Your task to perform on an android device: Find the nearest electronics store that's open now Image 0: 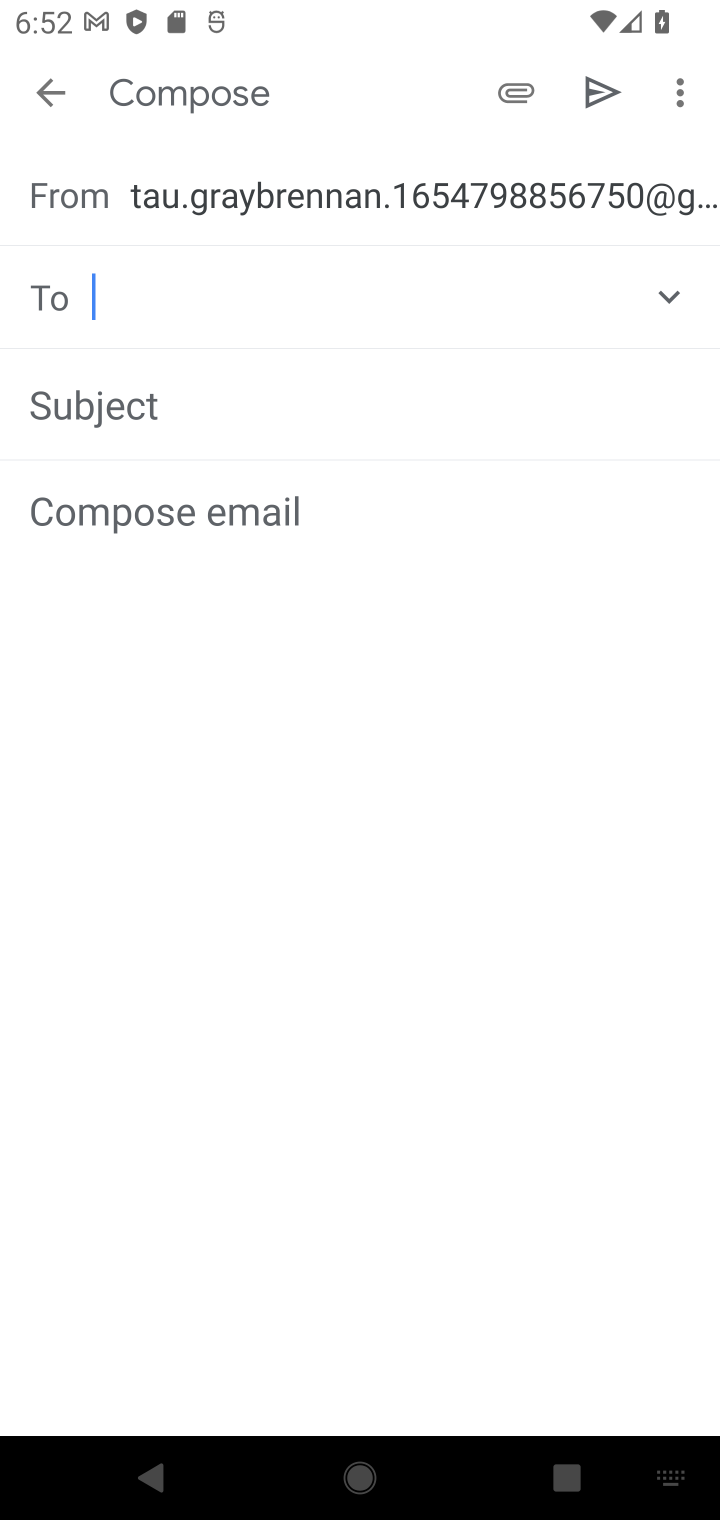
Step 0: press home button
Your task to perform on an android device: Find the nearest electronics store that's open now Image 1: 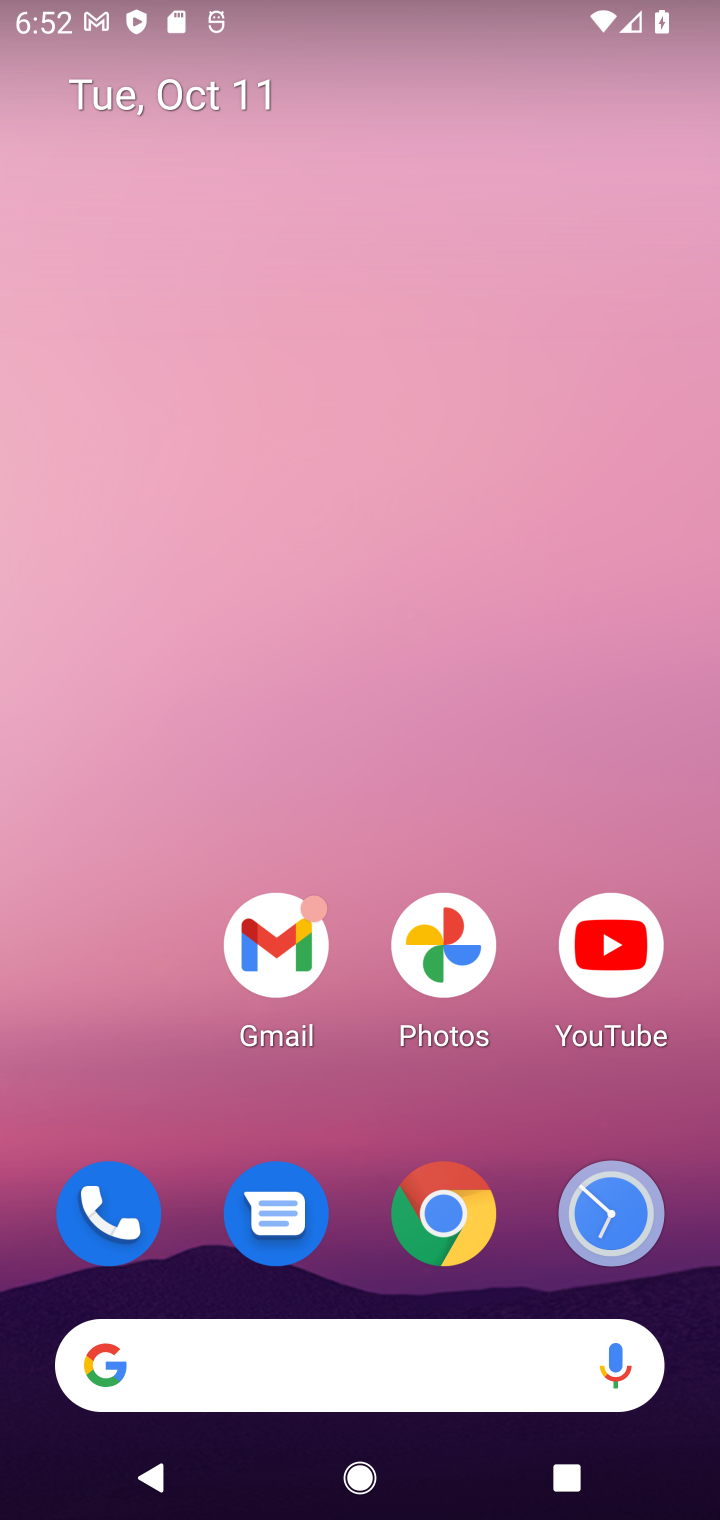
Step 1: drag from (343, 1335) to (302, 351)
Your task to perform on an android device: Find the nearest electronics store that's open now Image 2: 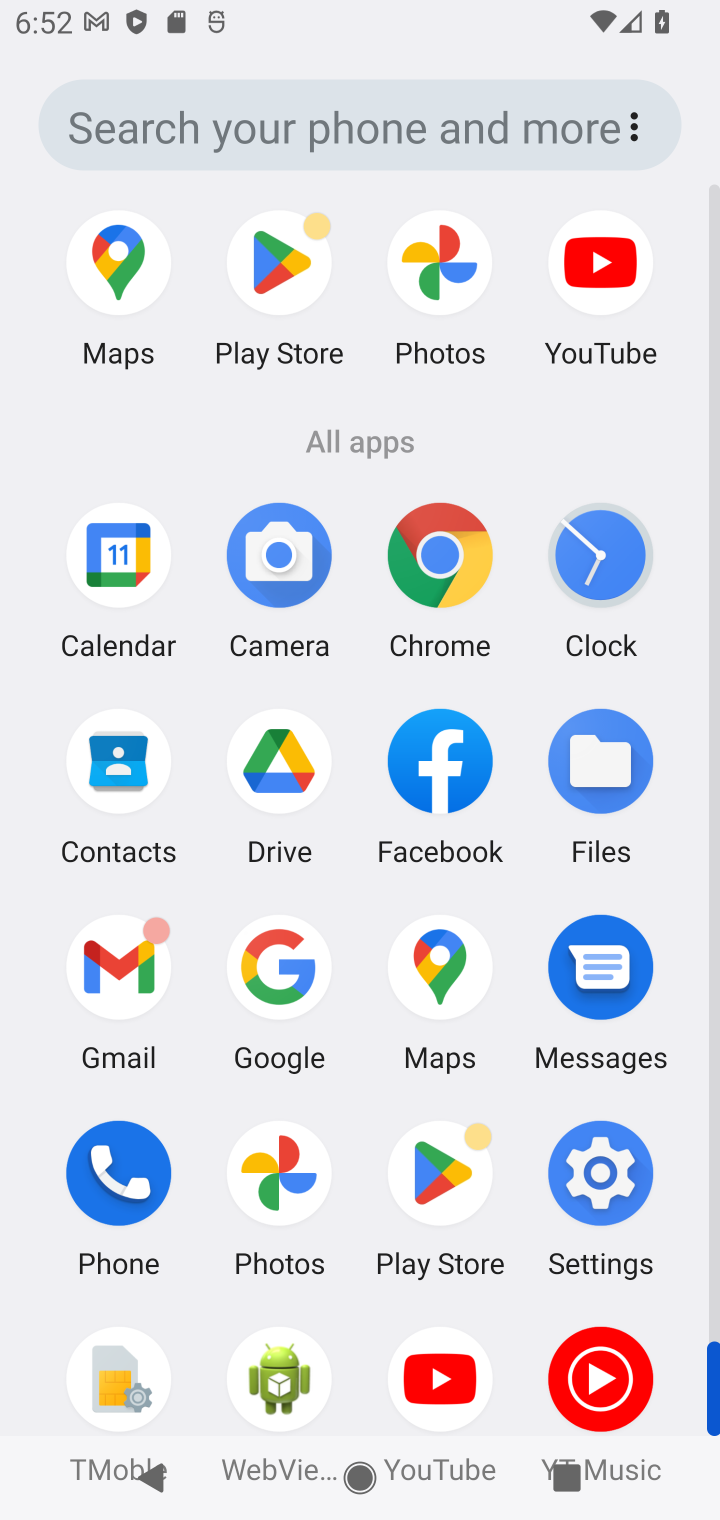
Step 2: click (267, 967)
Your task to perform on an android device: Find the nearest electronics store that's open now Image 3: 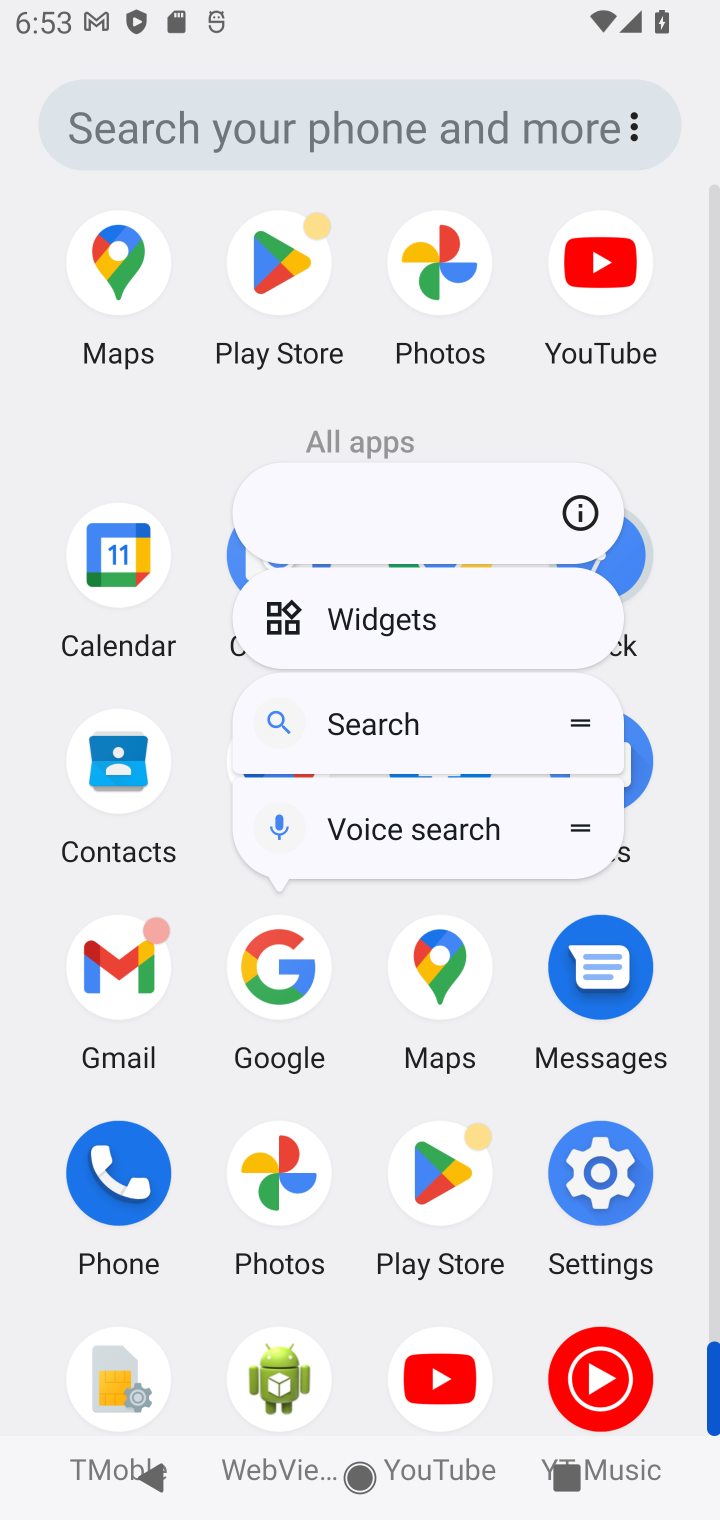
Step 3: click (266, 958)
Your task to perform on an android device: Find the nearest electronics store that's open now Image 4: 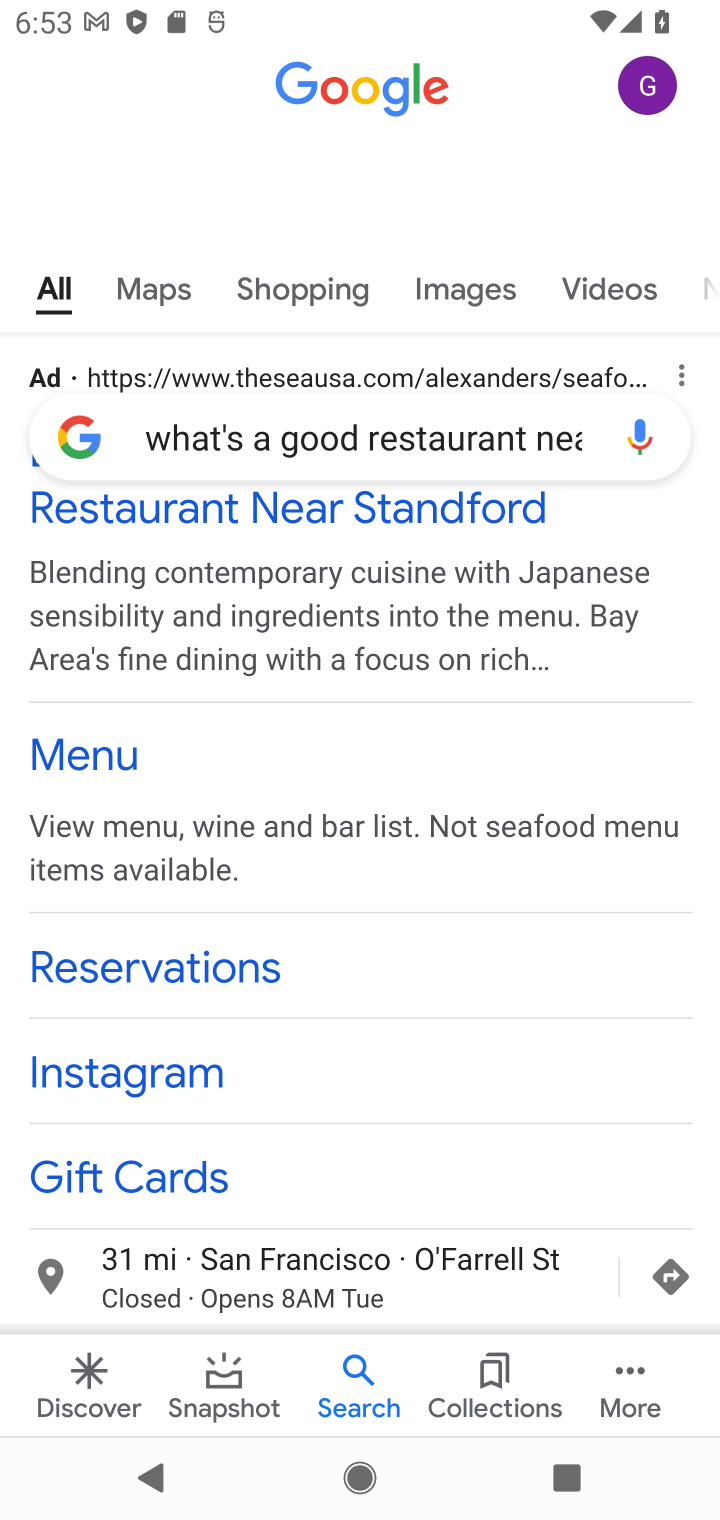
Step 4: click (266, 958)
Your task to perform on an android device: Find the nearest electronics store that's open now Image 5: 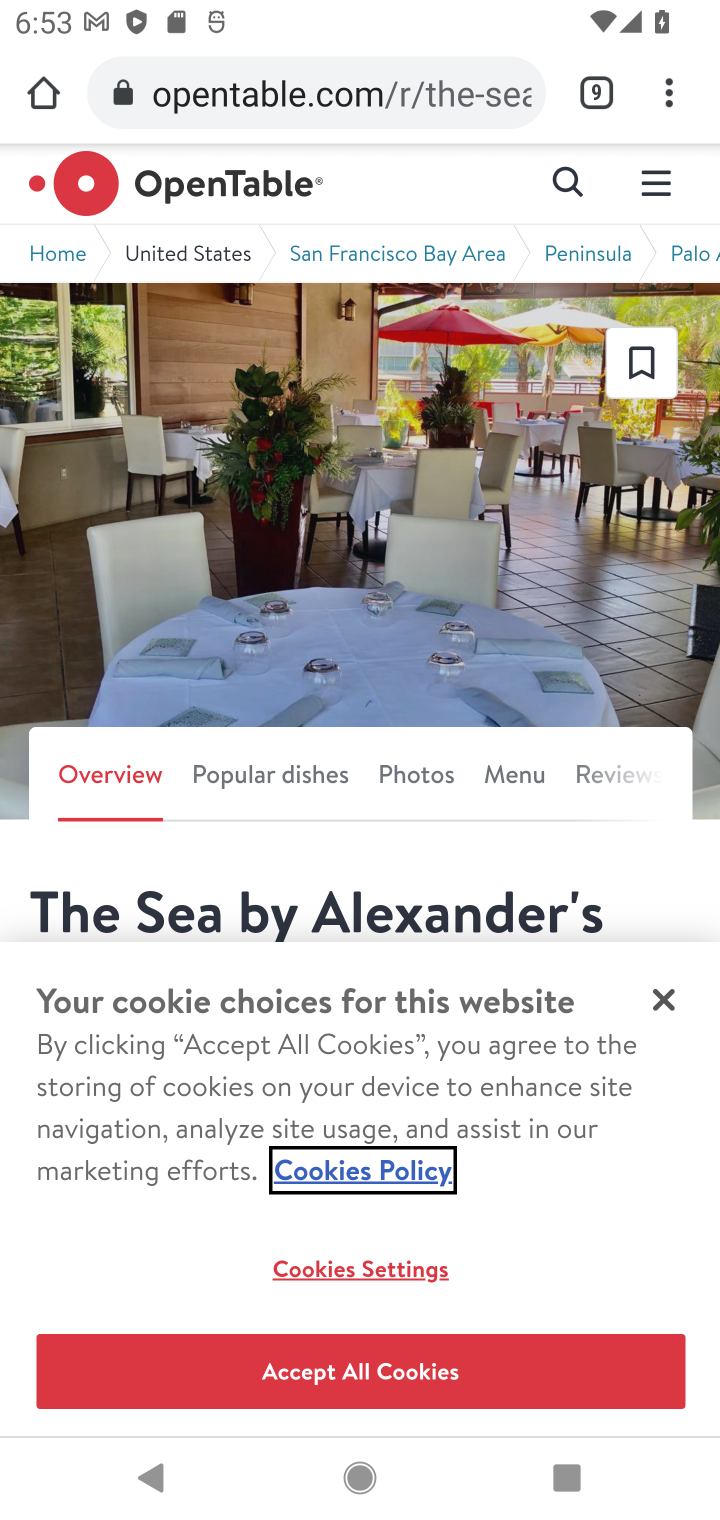
Step 5: press back button
Your task to perform on an android device: Find the nearest electronics store that's open now Image 6: 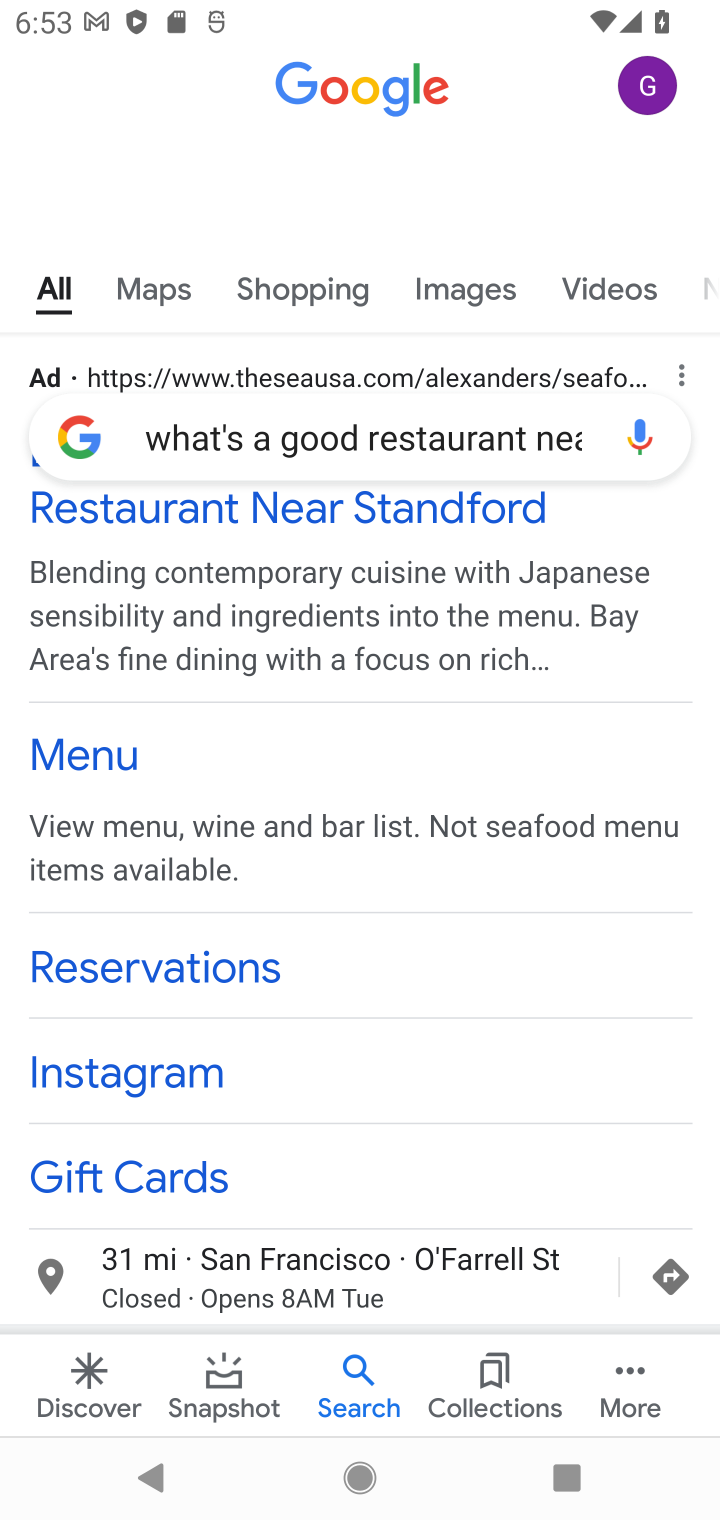
Step 6: click (390, 434)
Your task to perform on an android device: Find the nearest electronics store that's open now Image 7: 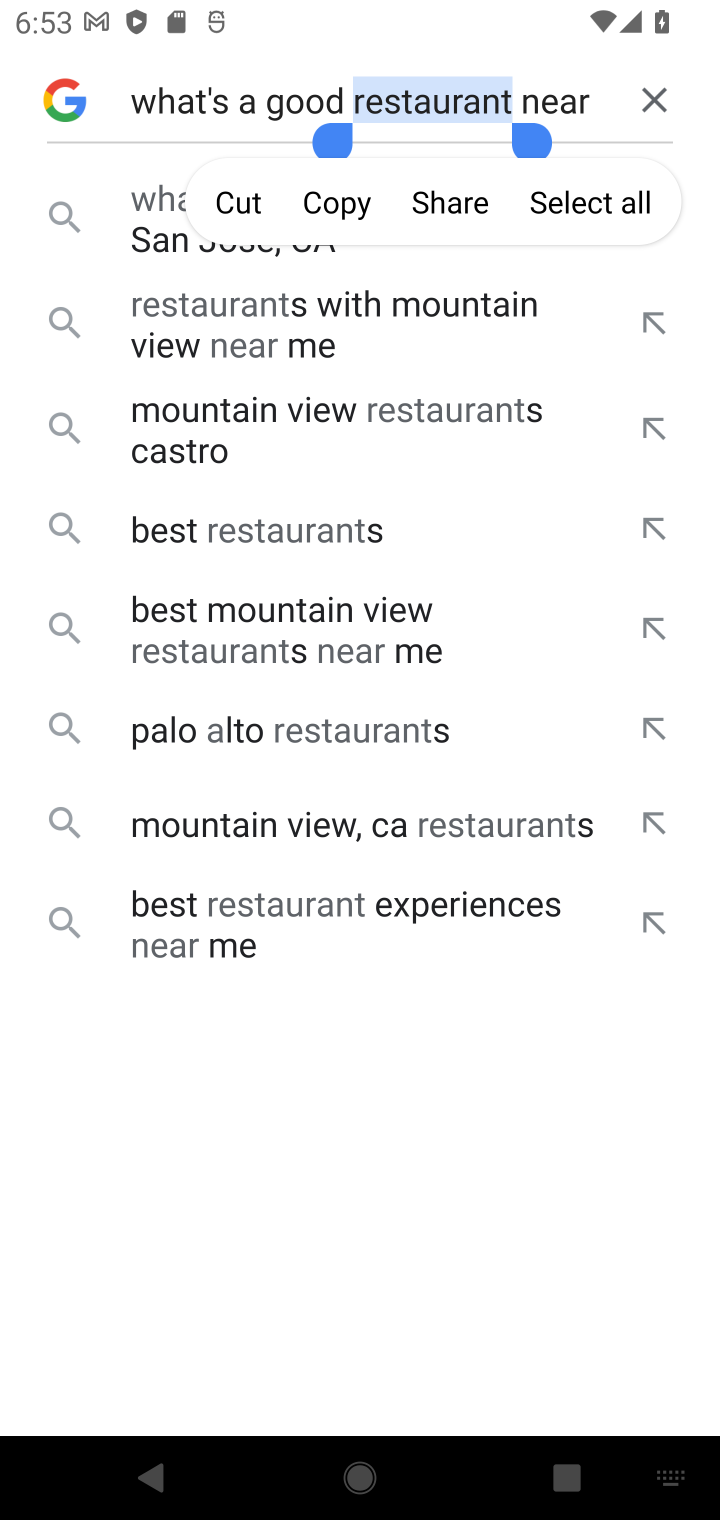
Step 7: click (658, 102)
Your task to perform on an android device: Find the nearest electronics store that's open now Image 8: 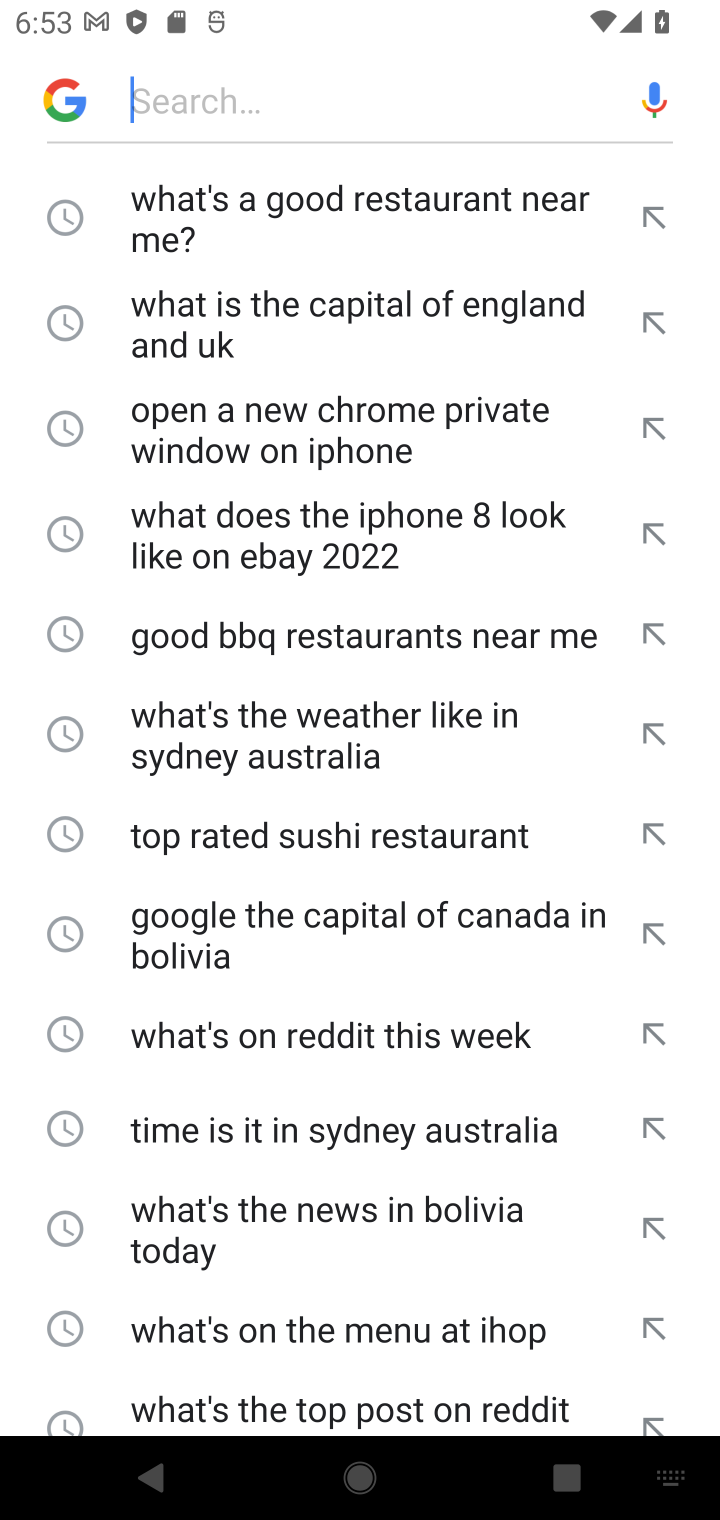
Step 8: click (380, 106)
Your task to perform on an android device: Find the nearest electronics store that's open now Image 9: 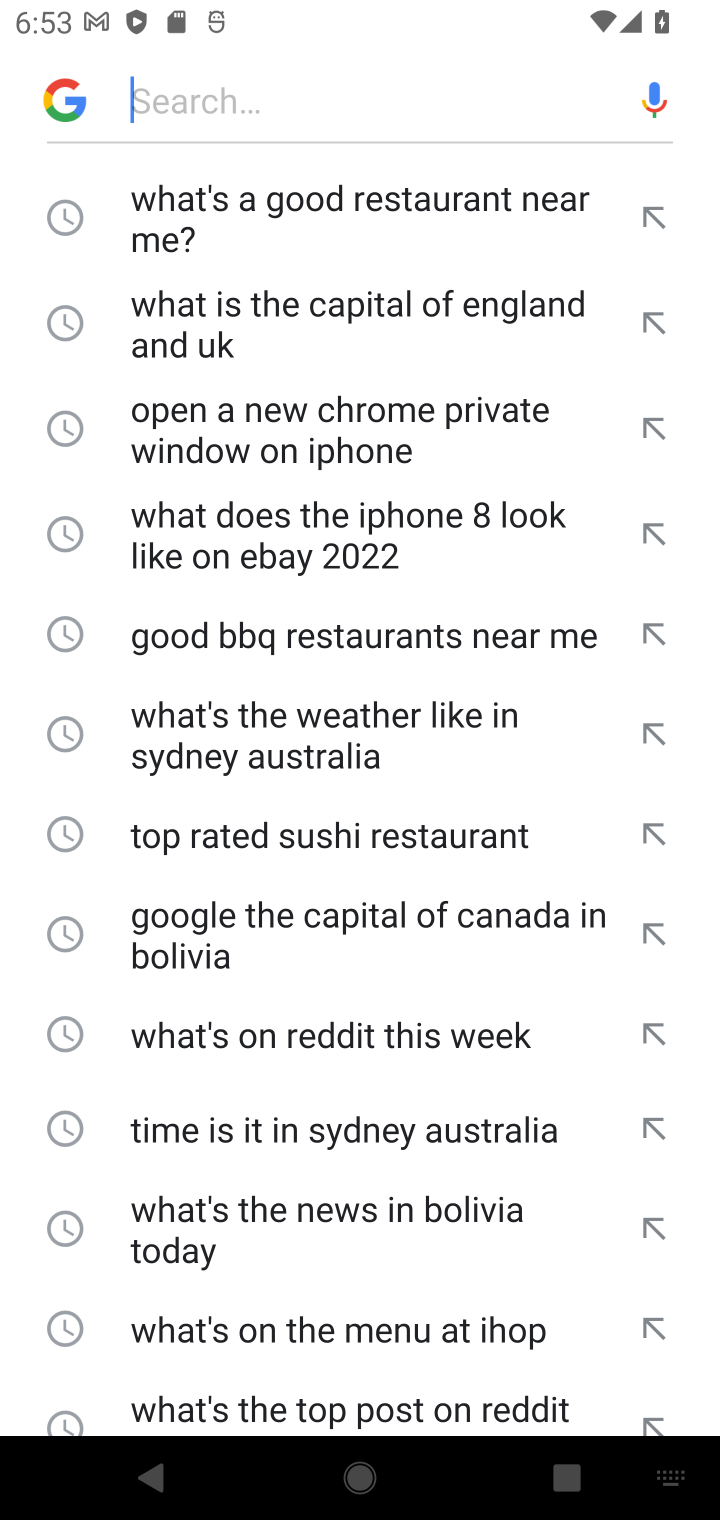
Step 9: type "Find the nearest electronics store that's open now "
Your task to perform on an android device: Find the nearest electronics store that's open now Image 10: 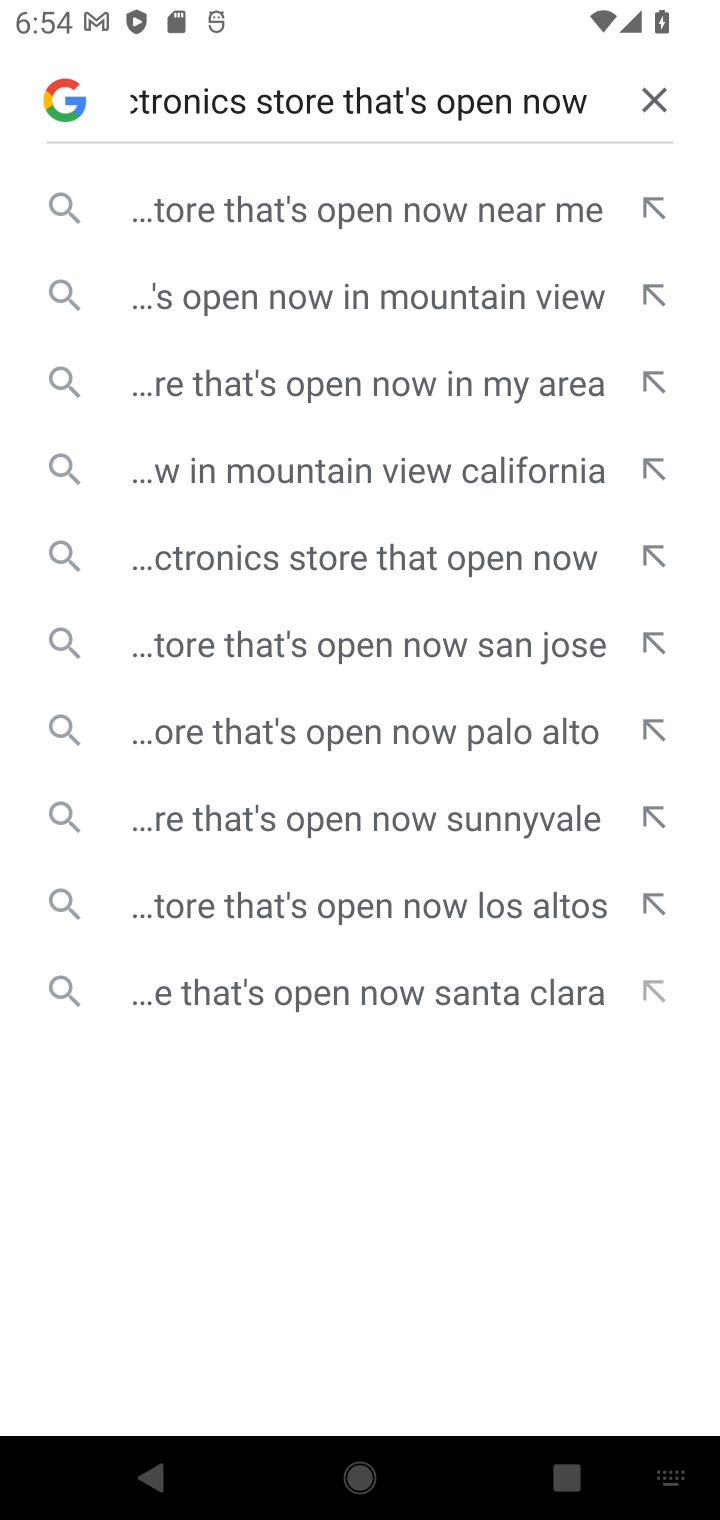
Step 10: click (449, 212)
Your task to perform on an android device: Find the nearest electronics store that's open now Image 11: 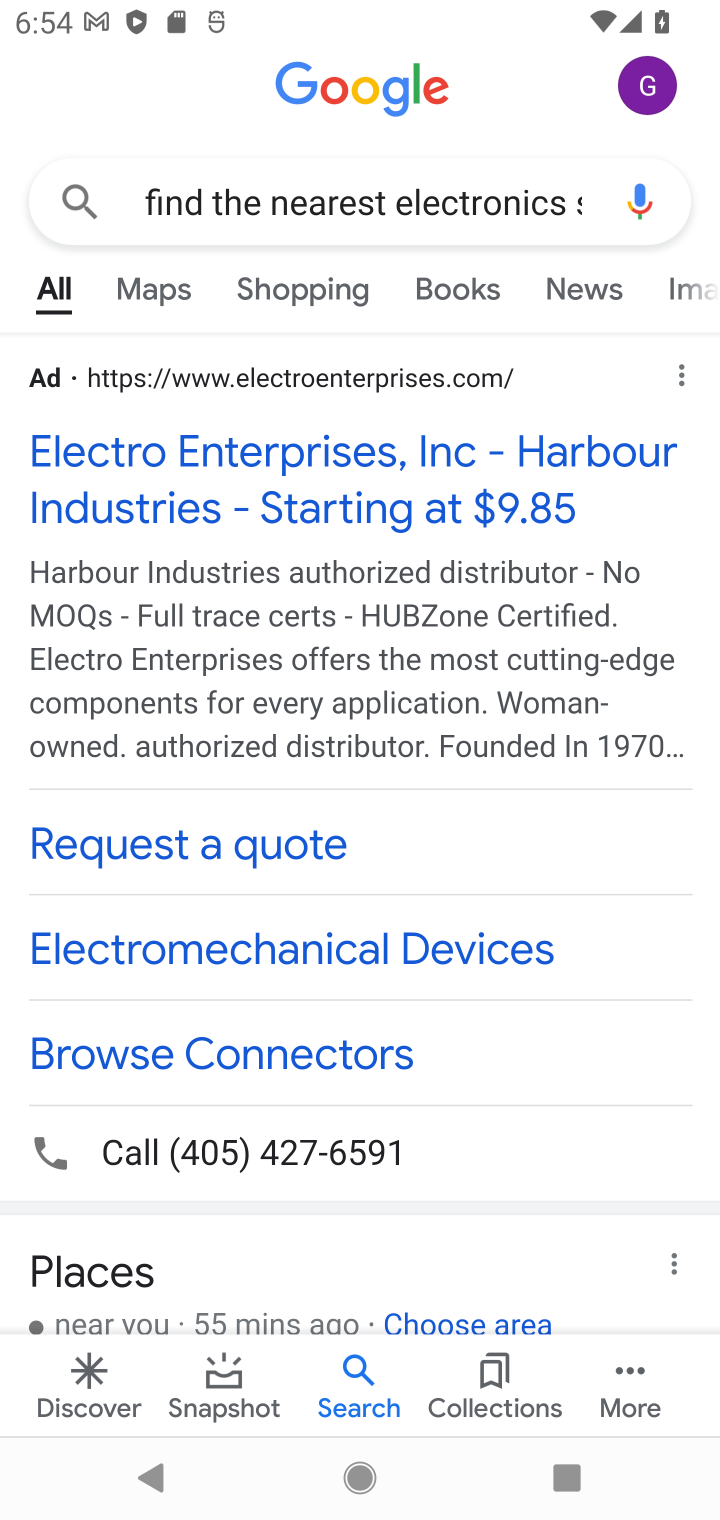
Step 11: click (267, 445)
Your task to perform on an android device: Find the nearest electronics store that's open now Image 12: 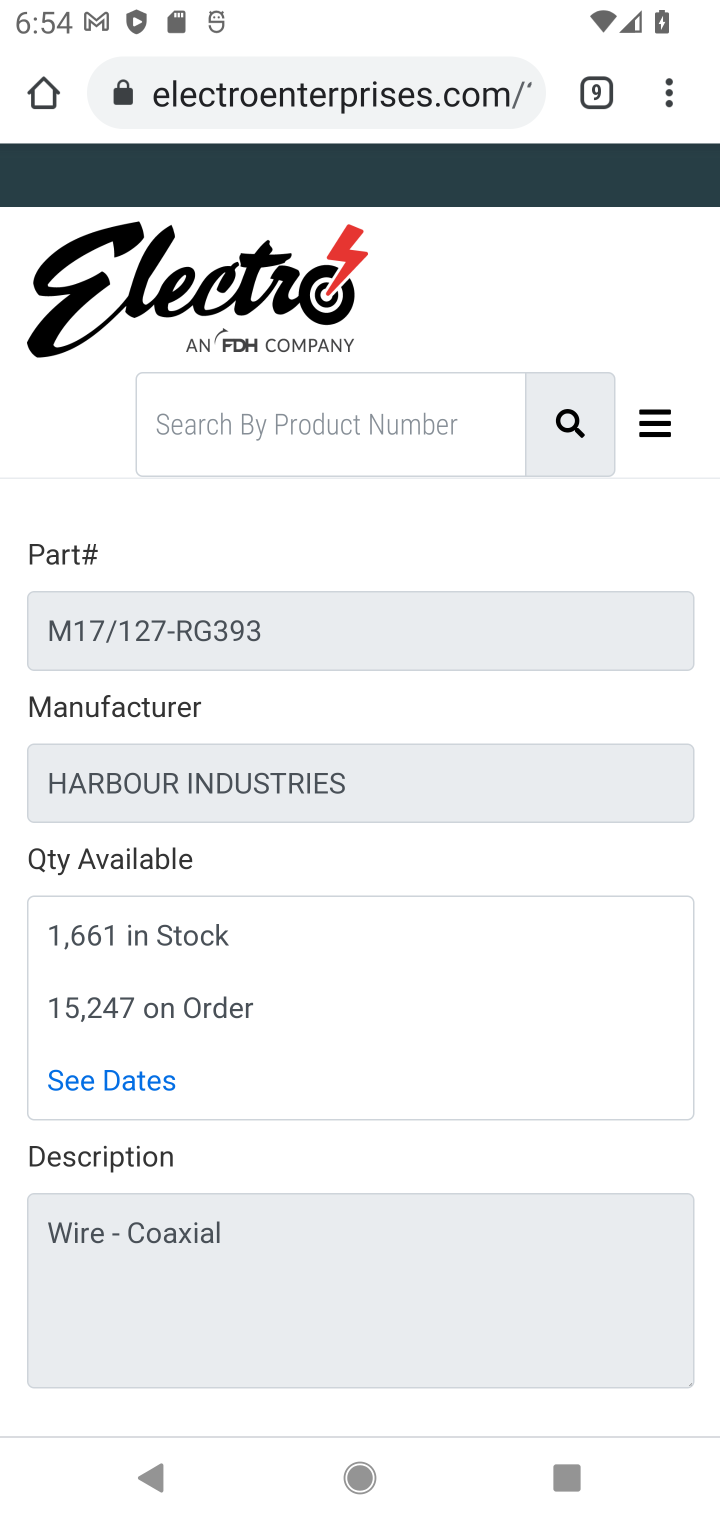
Step 12: drag from (327, 1390) to (438, 228)
Your task to perform on an android device: Find the nearest electronics store that's open now Image 13: 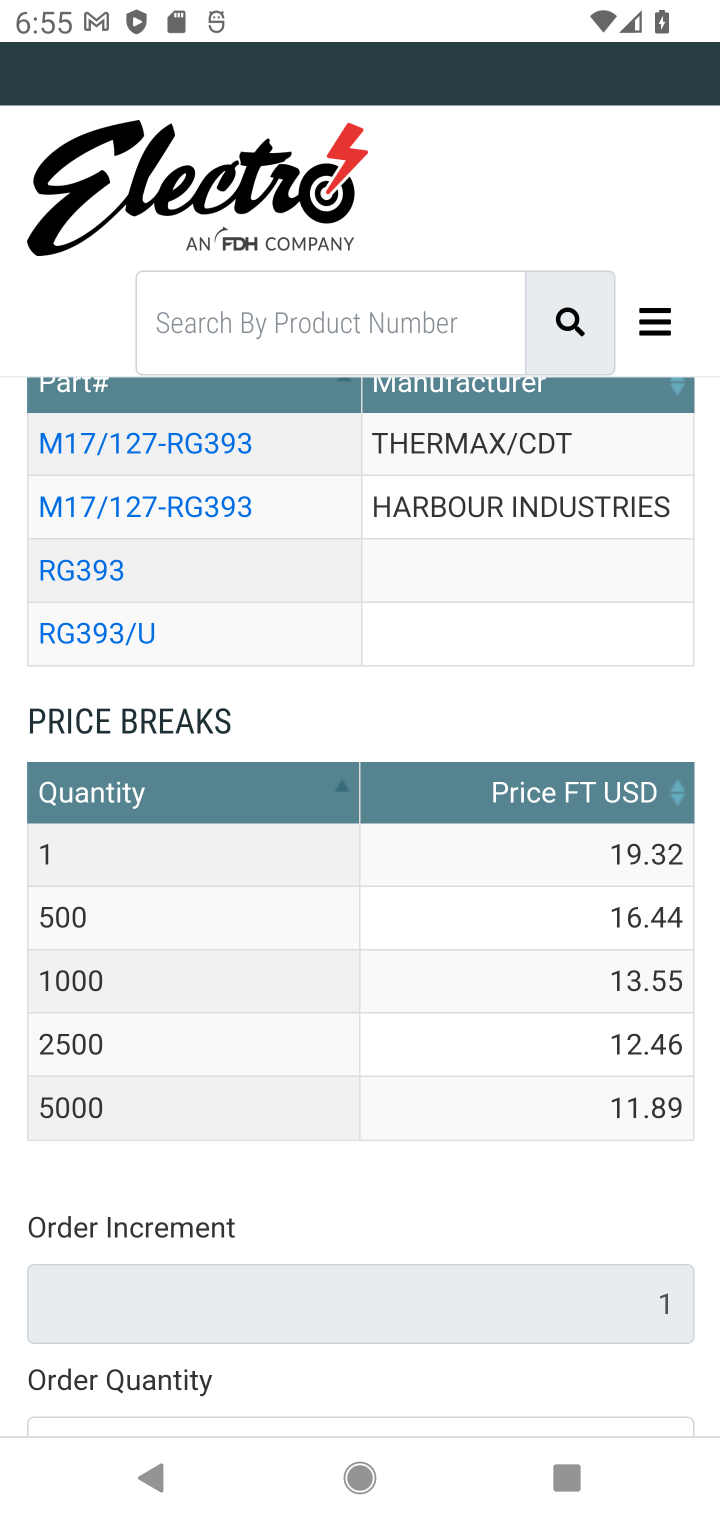
Step 13: press back button
Your task to perform on an android device: Find the nearest electronics store that's open now Image 14: 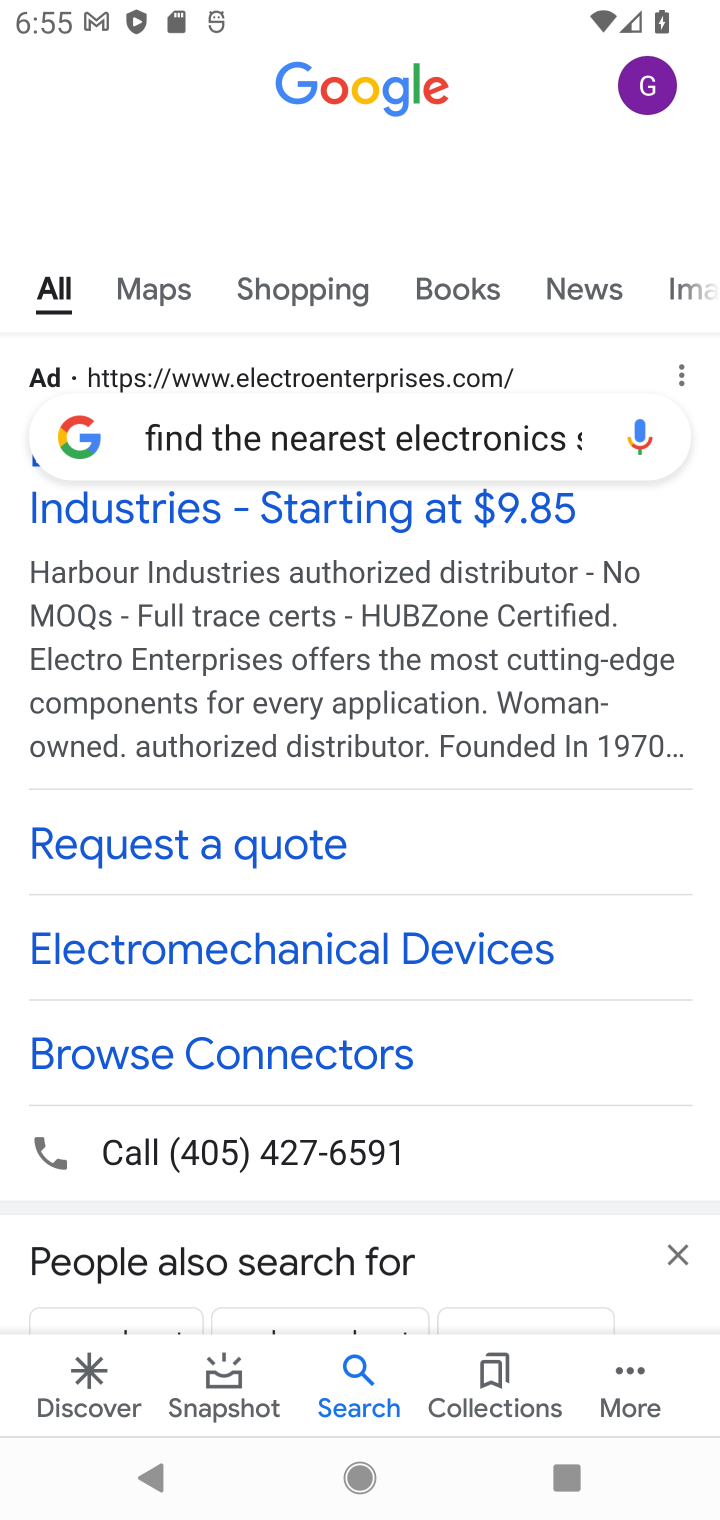
Step 14: drag from (422, 1177) to (438, 654)
Your task to perform on an android device: Find the nearest electronics store that's open now Image 15: 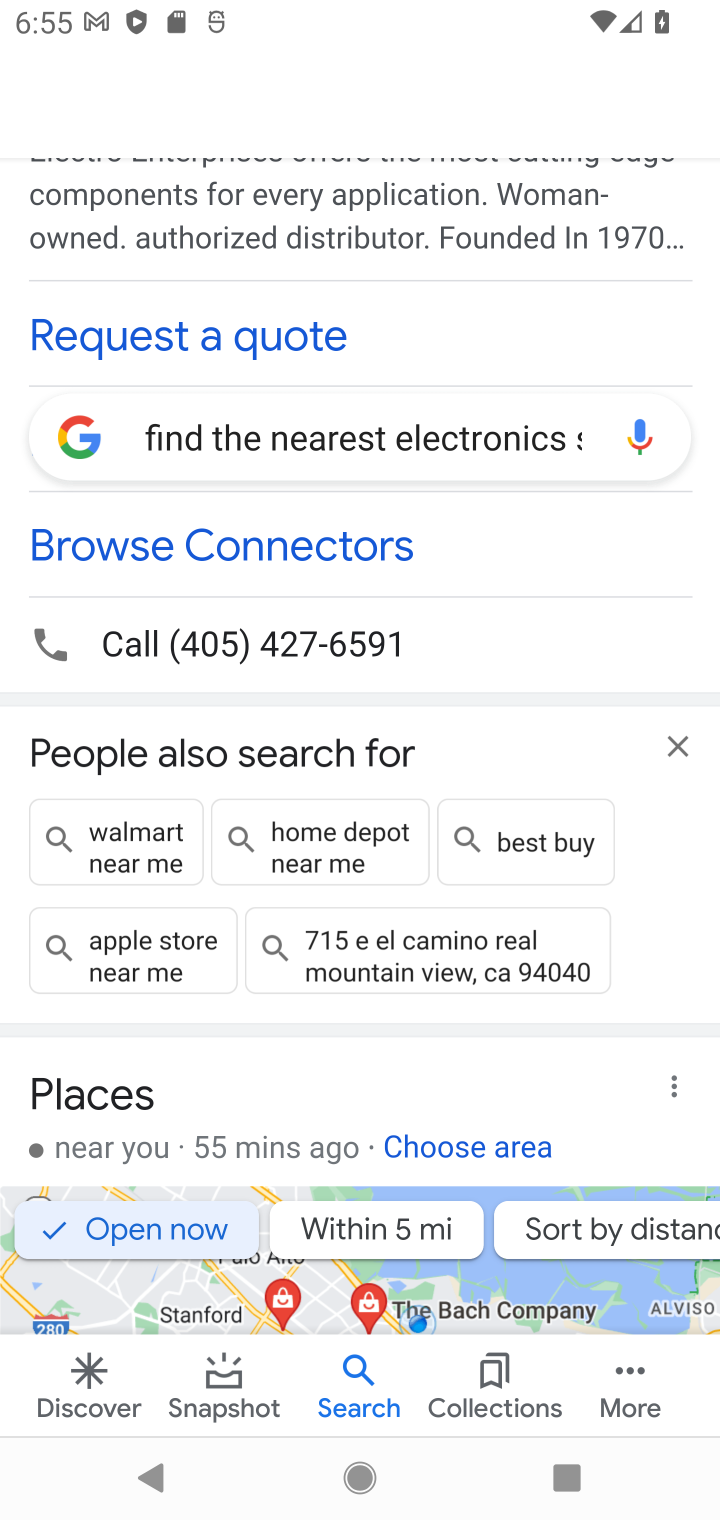
Step 15: drag from (319, 1129) to (350, 463)
Your task to perform on an android device: Find the nearest electronics store that's open now Image 16: 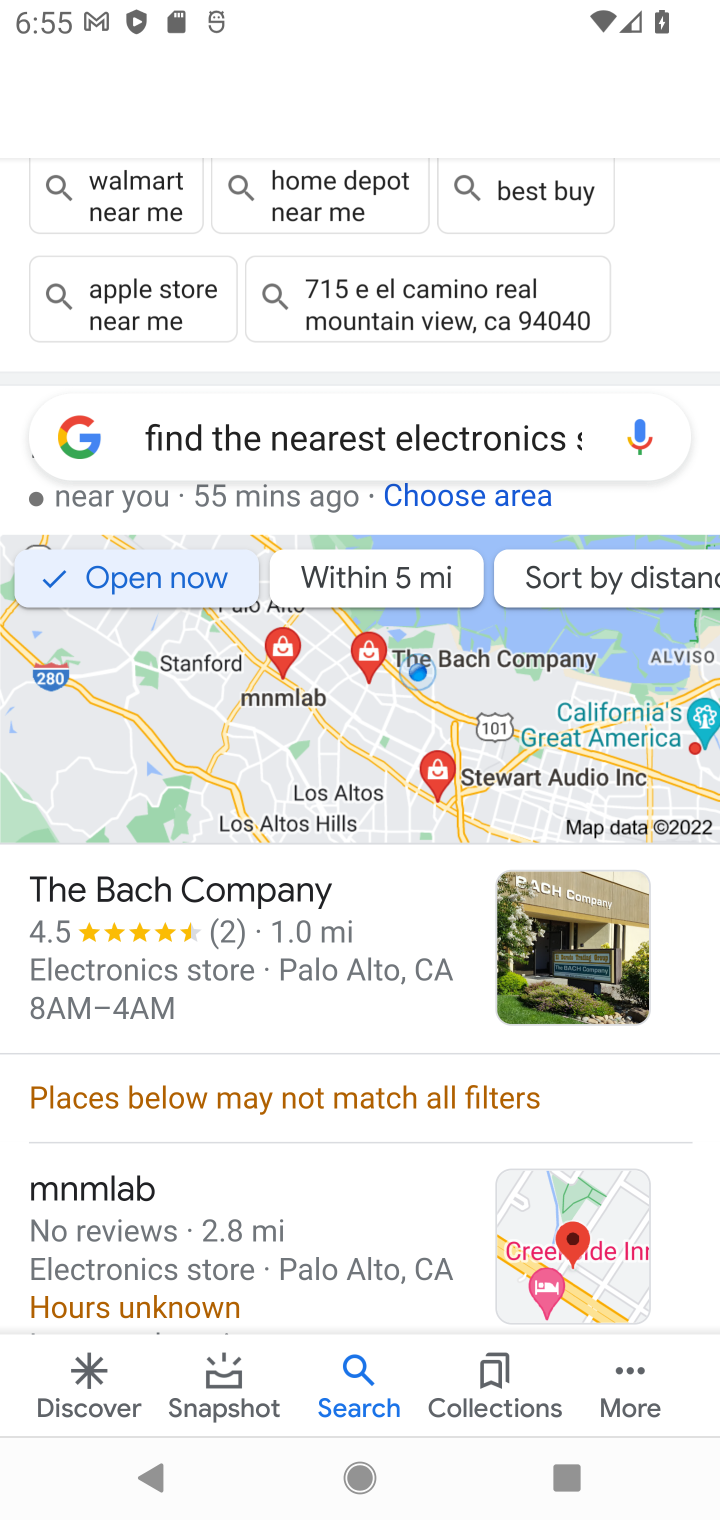
Step 16: drag from (208, 921) to (192, 626)
Your task to perform on an android device: Find the nearest electronics store that's open now Image 17: 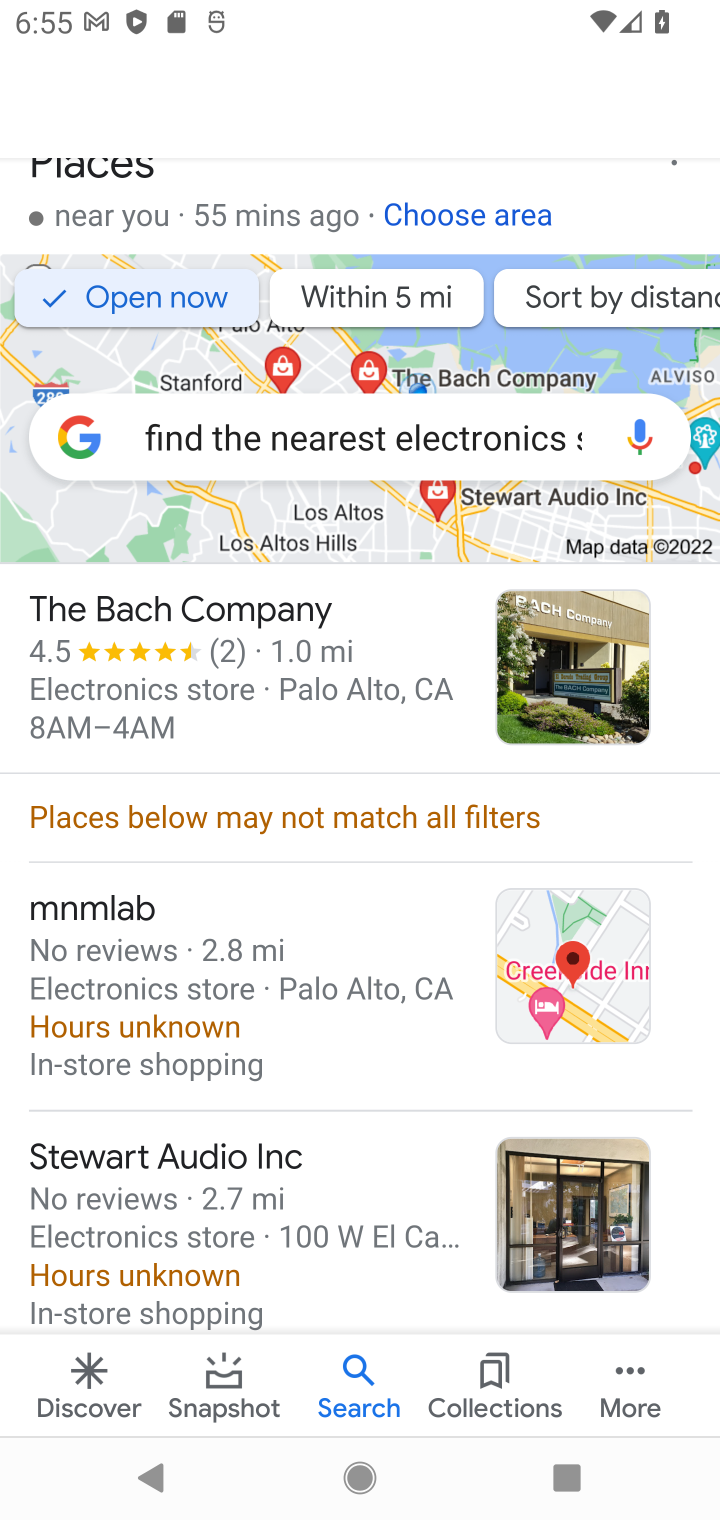
Step 17: drag from (271, 1224) to (289, 448)
Your task to perform on an android device: Find the nearest electronics store that's open now Image 18: 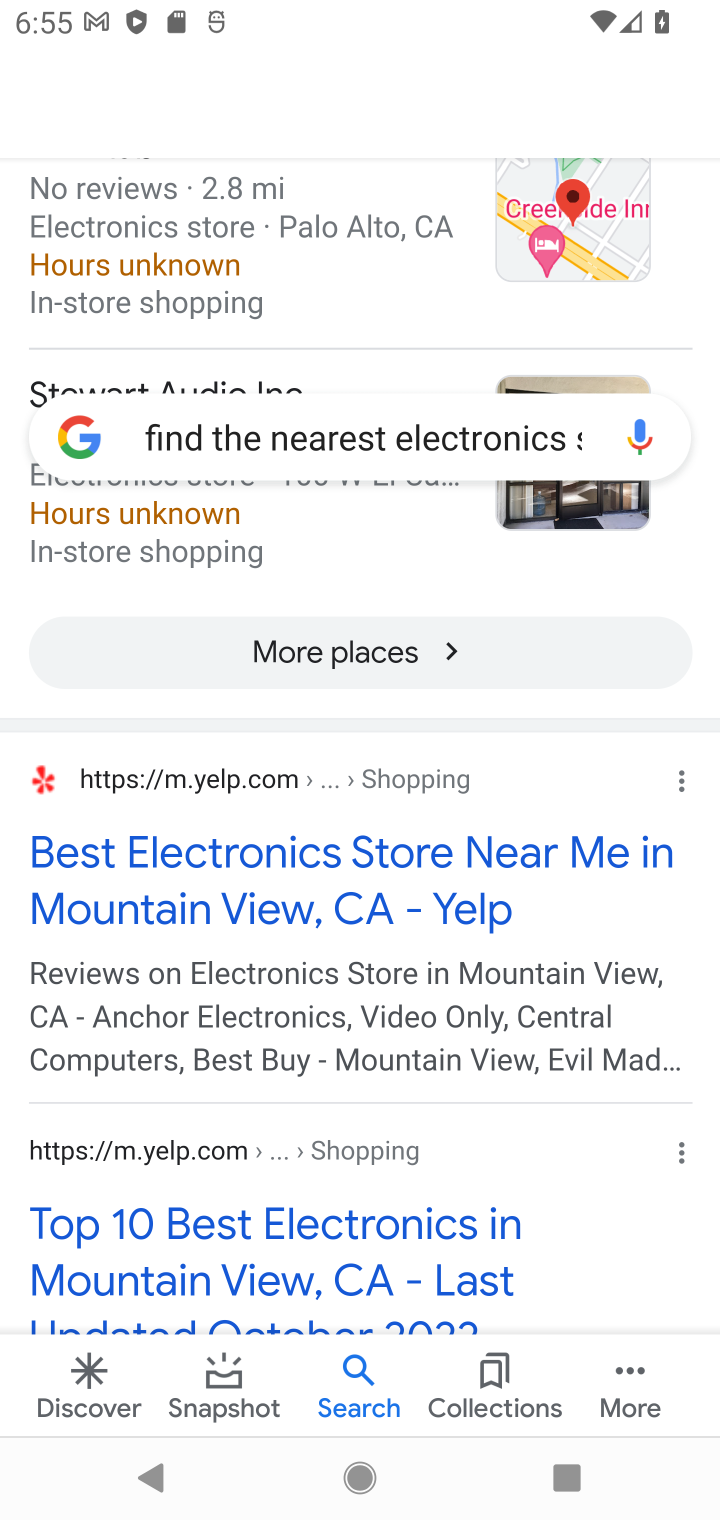
Step 18: click (362, 857)
Your task to perform on an android device: Find the nearest electronics store that's open now Image 19: 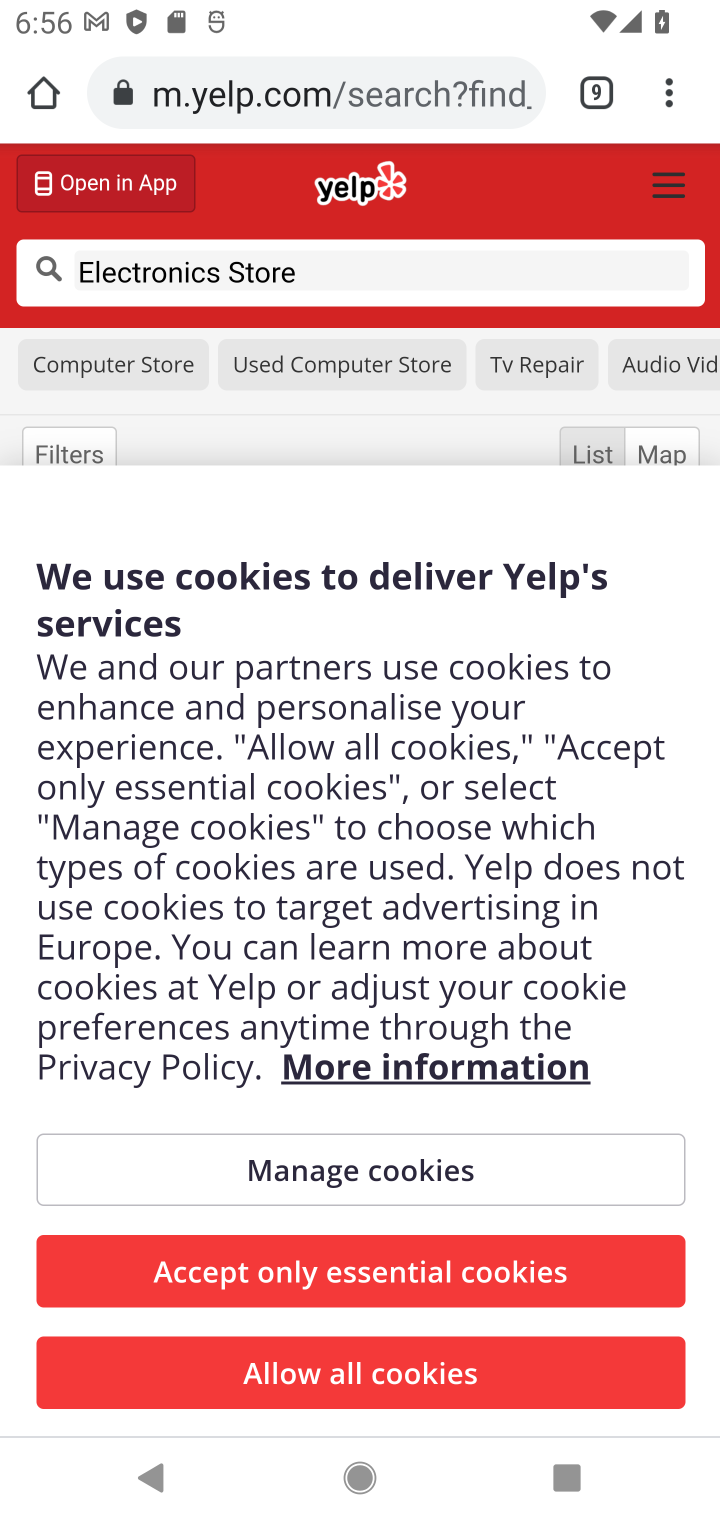
Step 19: task complete